Your task to perform on an android device: When is my next appointment? Image 0: 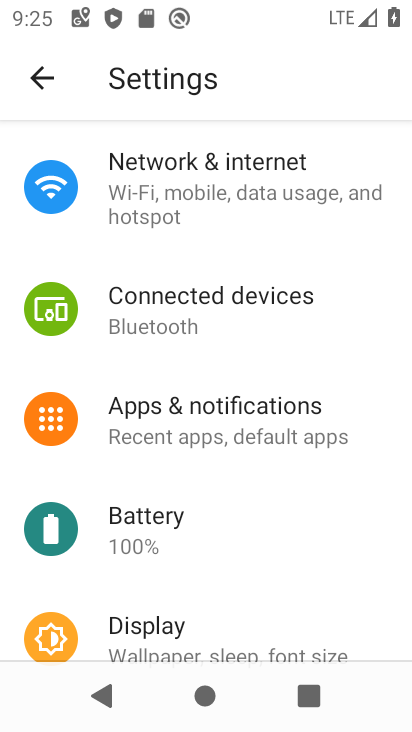
Step 0: press home button
Your task to perform on an android device: When is my next appointment? Image 1: 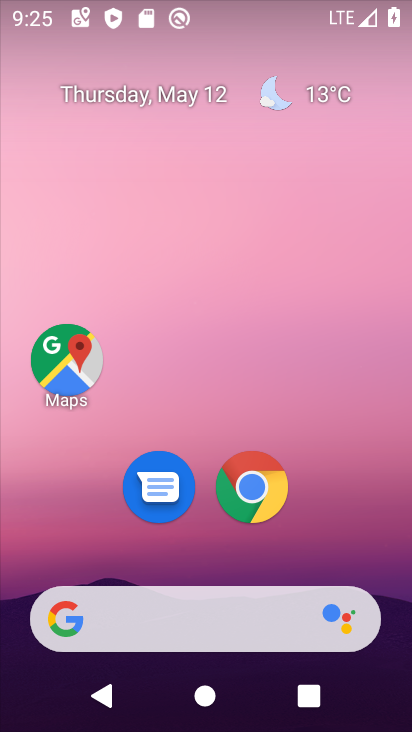
Step 1: drag from (342, 540) to (400, 1)
Your task to perform on an android device: When is my next appointment? Image 2: 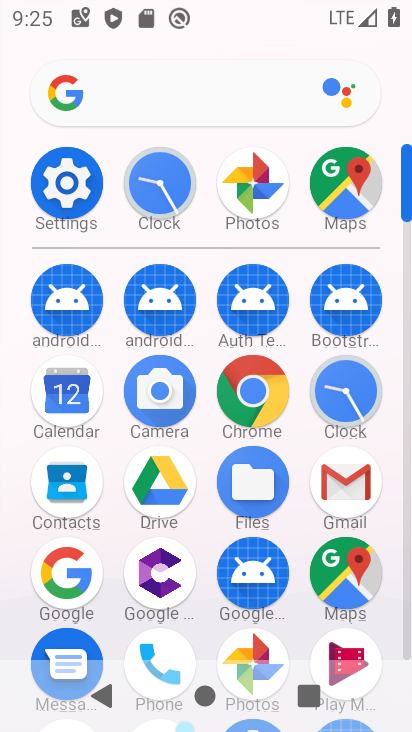
Step 2: click (69, 403)
Your task to perform on an android device: When is my next appointment? Image 3: 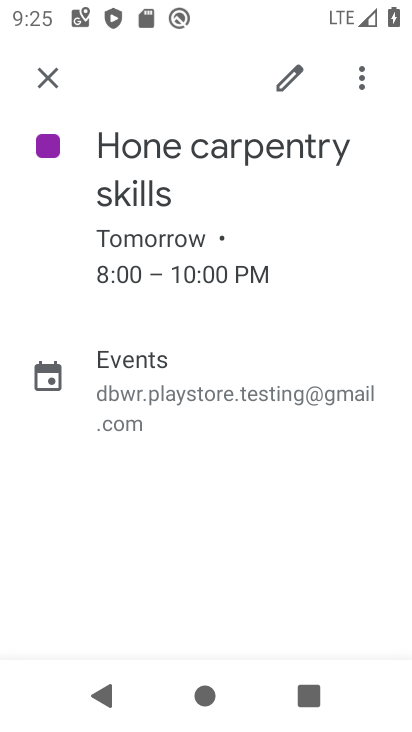
Step 3: click (45, 86)
Your task to perform on an android device: When is my next appointment? Image 4: 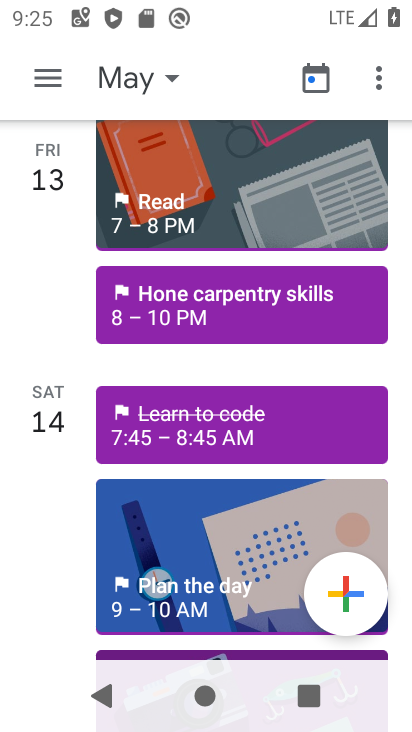
Step 4: click (221, 310)
Your task to perform on an android device: When is my next appointment? Image 5: 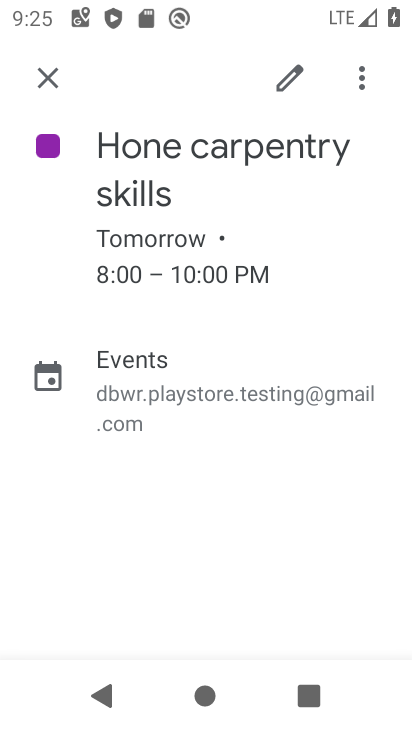
Step 5: task complete